Your task to perform on an android device: choose inbox layout in the gmail app Image 0: 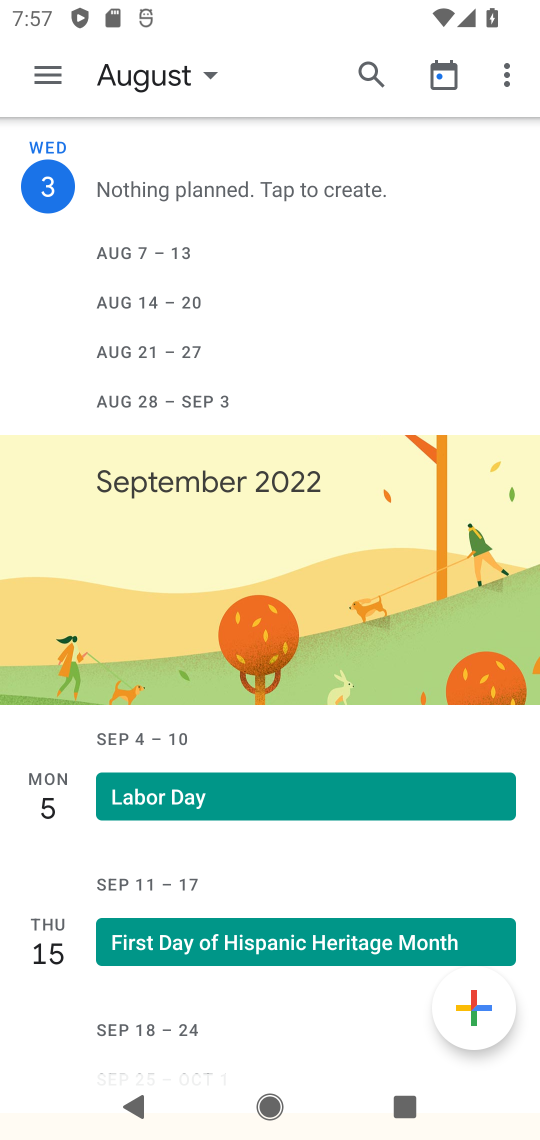
Step 0: press home button
Your task to perform on an android device: choose inbox layout in the gmail app Image 1: 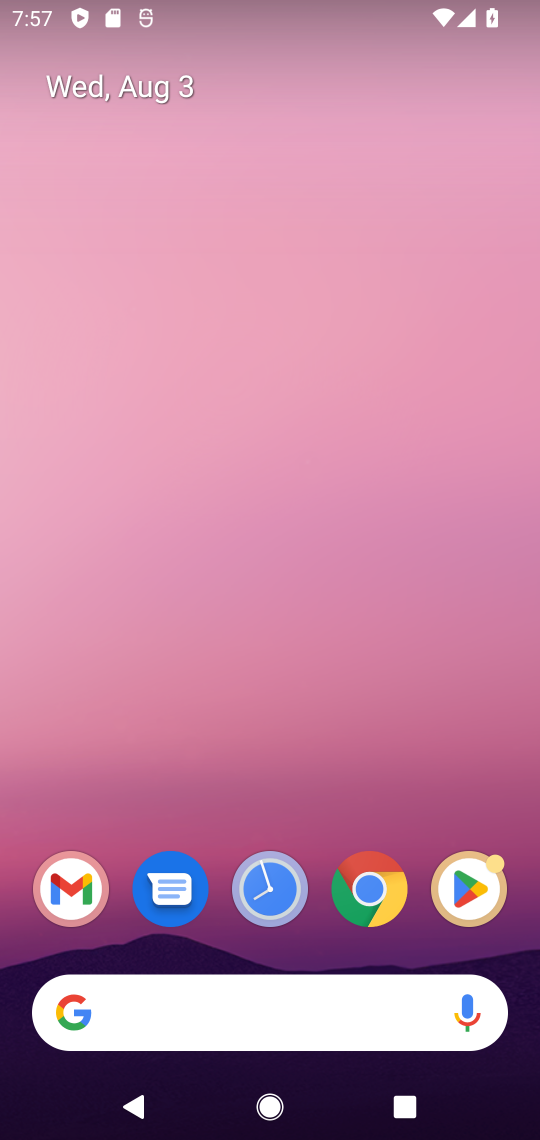
Step 1: click (64, 889)
Your task to perform on an android device: choose inbox layout in the gmail app Image 2: 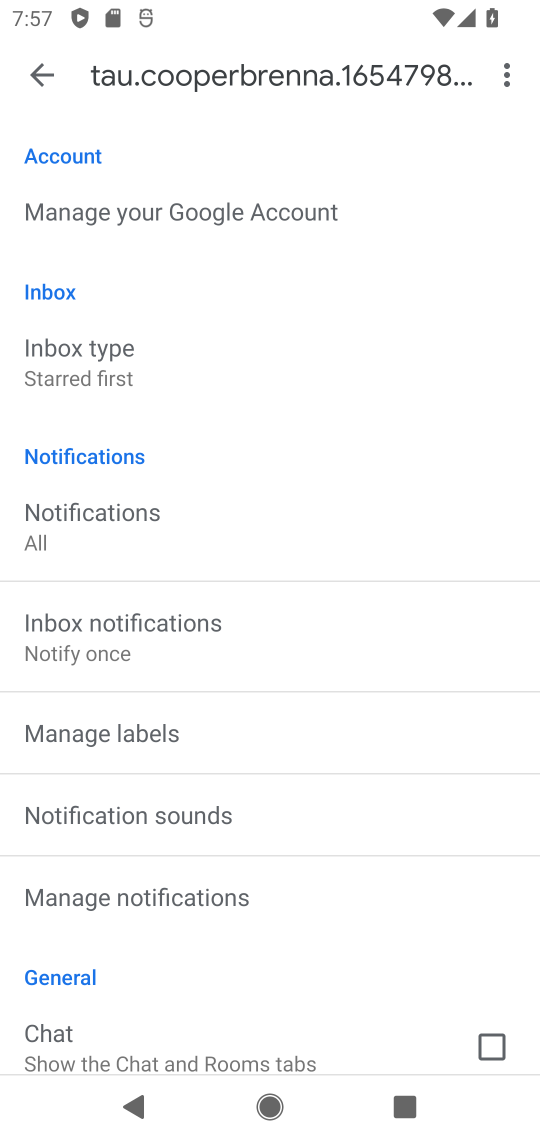
Step 2: click (125, 386)
Your task to perform on an android device: choose inbox layout in the gmail app Image 3: 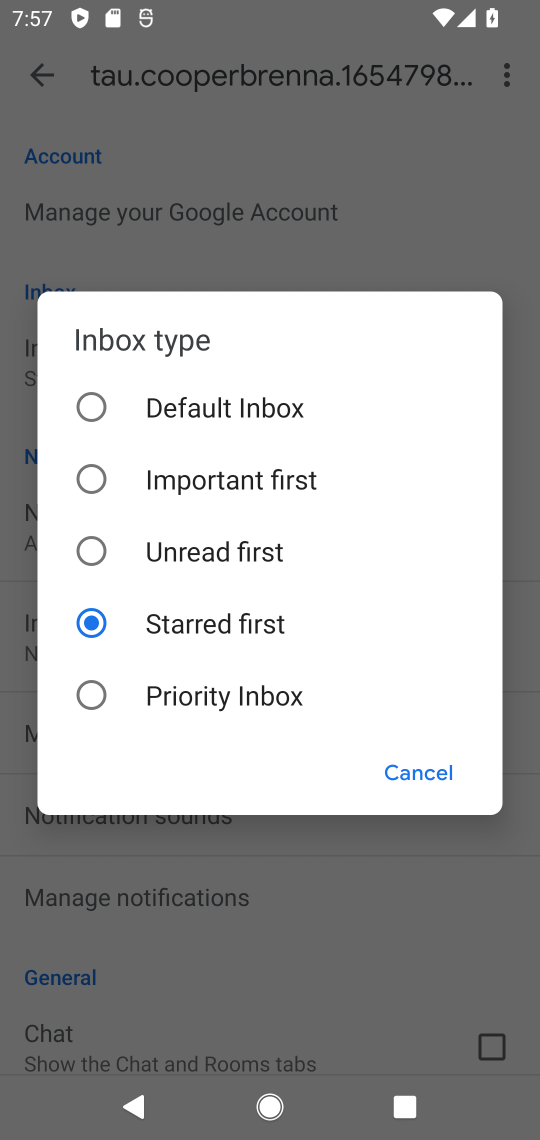
Step 3: click (191, 418)
Your task to perform on an android device: choose inbox layout in the gmail app Image 4: 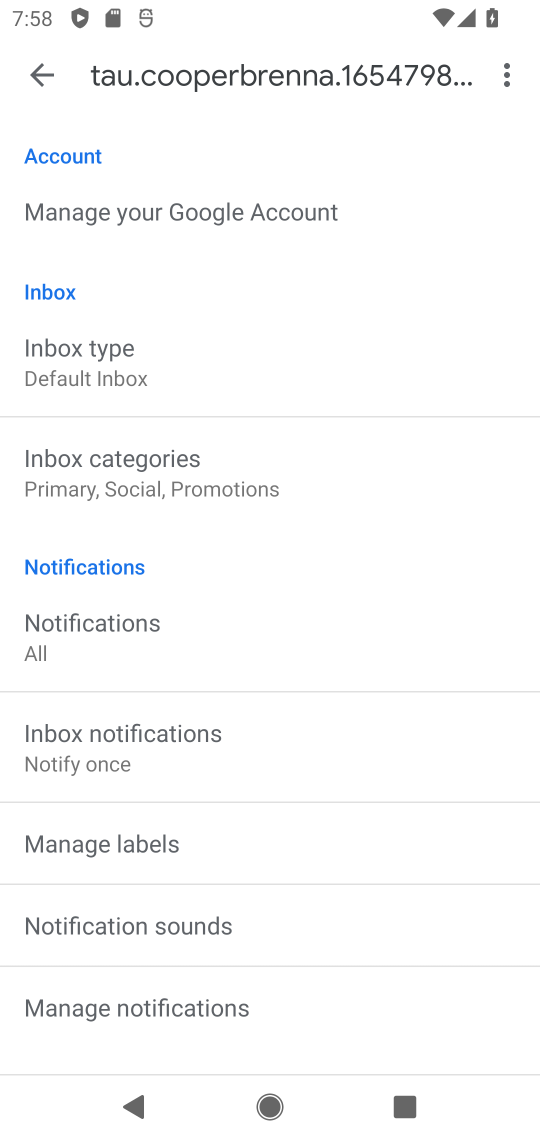
Step 4: task complete